Your task to perform on an android device: Open calendar and show me the second week of next month Image 0: 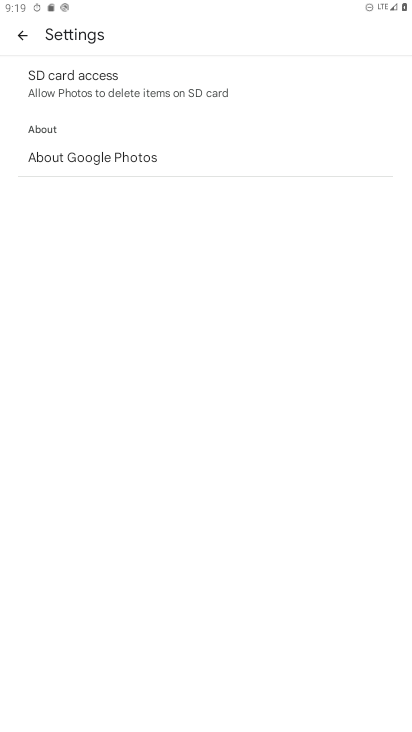
Step 0: press home button
Your task to perform on an android device: Open calendar and show me the second week of next month Image 1: 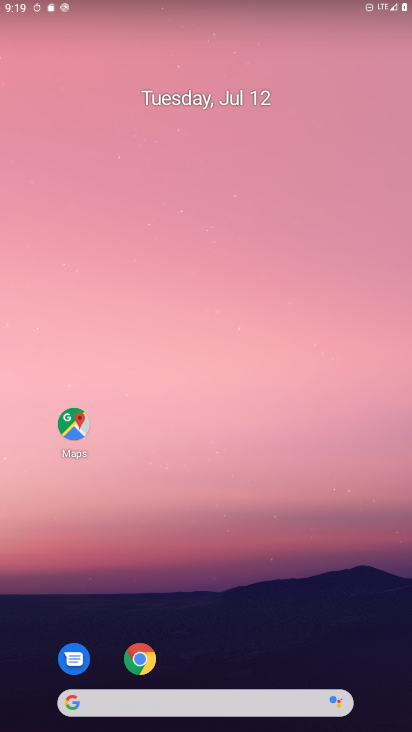
Step 1: drag from (370, 701) to (266, 13)
Your task to perform on an android device: Open calendar and show me the second week of next month Image 2: 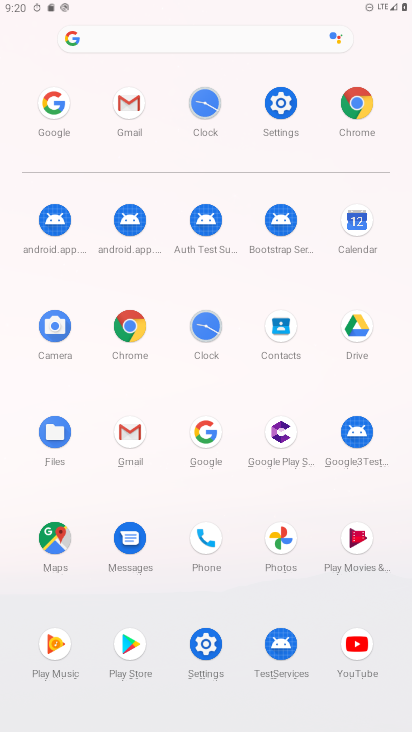
Step 2: click (360, 216)
Your task to perform on an android device: Open calendar and show me the second week of next month Image 3: 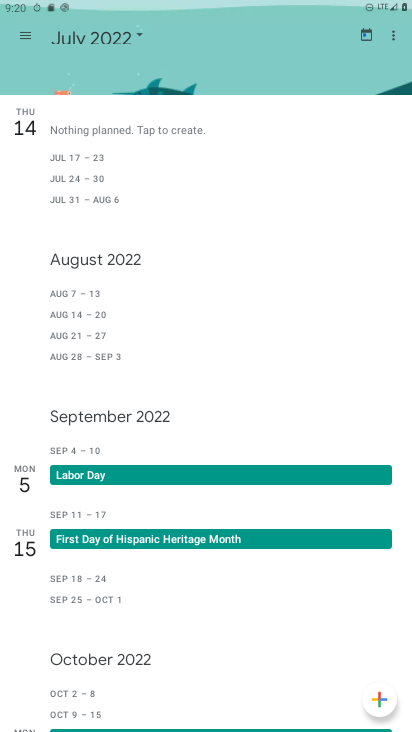
Step 3: click (76, 45)
Your task to perform on an android device: Open calendar and show me the second week of next month Image 4: 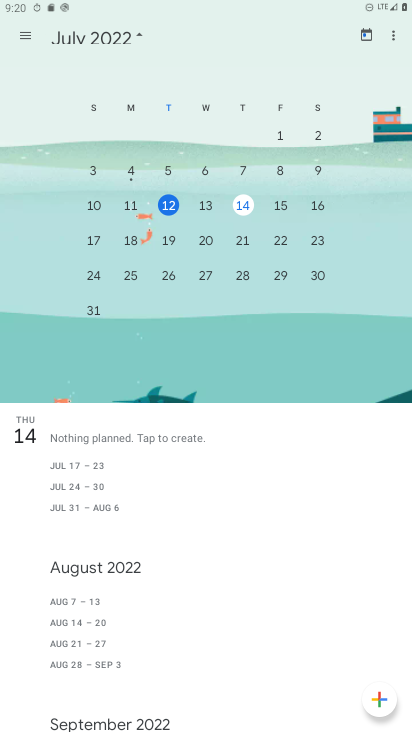
Step 4: drag from (318, 230) to (38, 227)
Your task to perform on an android device: Open calendar and show me the second week of next month Image 5: 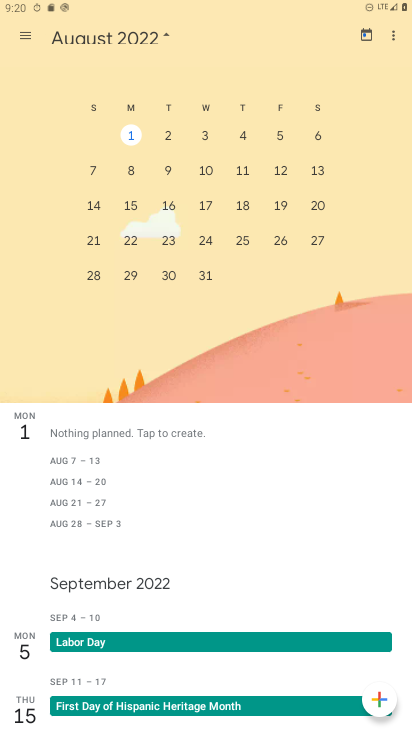
Step 5: click (98, 203)
Your task to perform on an android device: Open calendar and show me the second week of next month Image 6: 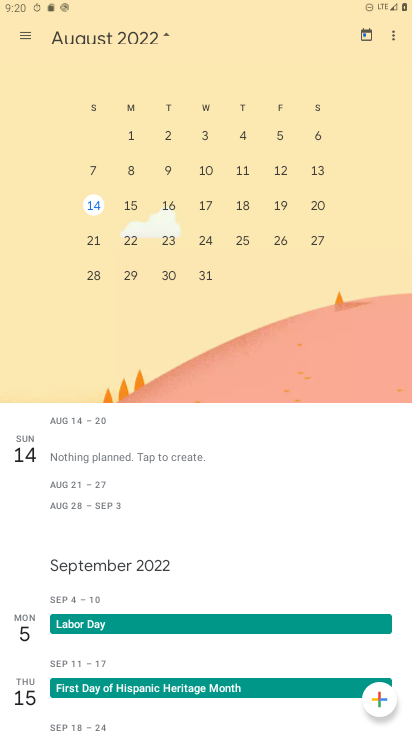
Step 6: task complete